Your task to perform on an android device: Go to display settings Image 0: 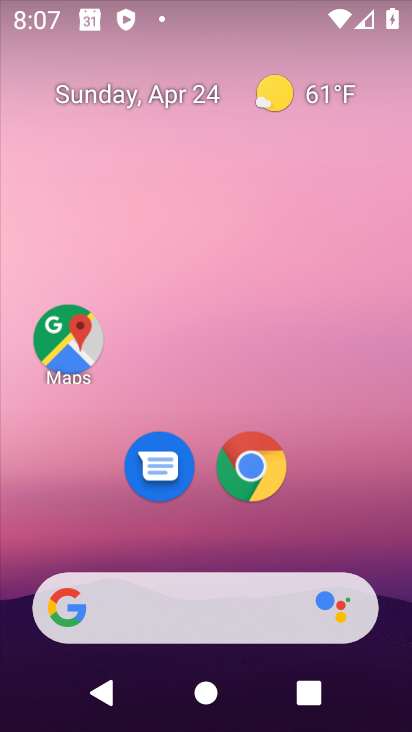
Step 0: drag from (198, 554) to (235, 0)
Your task to perform on an android device: Go to display settings Image 1: 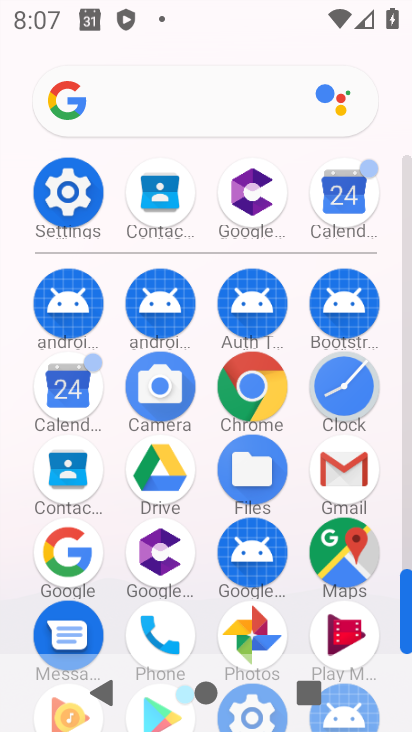
Step 1: click (54, 210)
Your task to perform on an android device: Go to display settings Image 2: 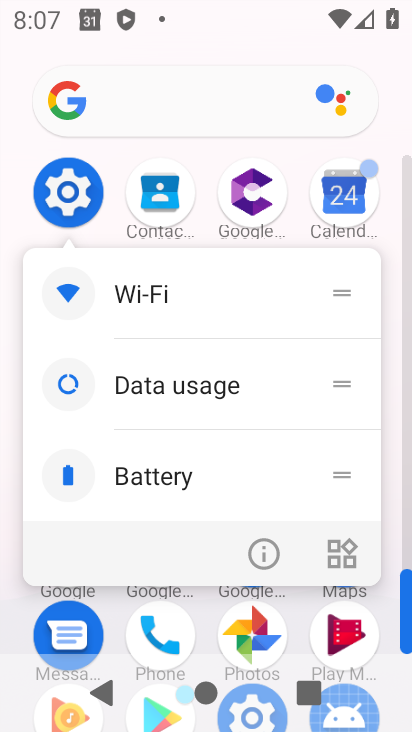
Step 2: click (70, 186)
Your task to perform on an android device: Go to display settings Image 3: 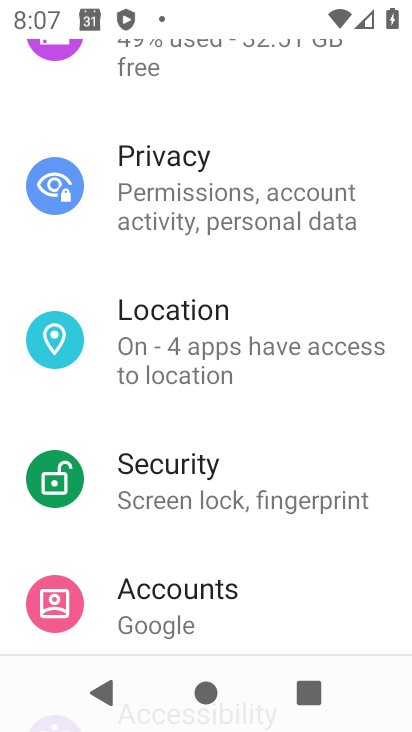
Step 3: drag from (236, 131) to (145, 659)
Your task to perform on an android device: Go to display settings Image 4: 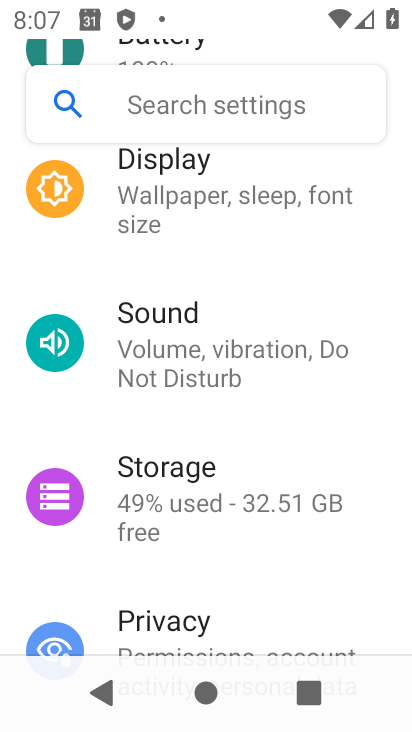
Step 4: click (218, 203)
Your task to perform on an android device: Go to display settings Image 5: 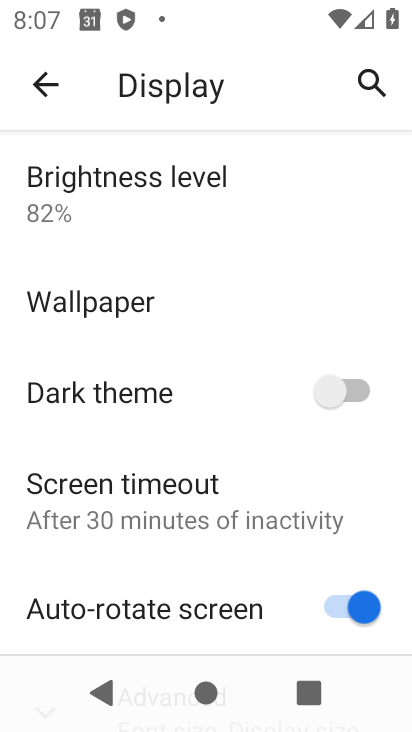
Step 5: task complete